Your task to perform on an android device: toggle javascript in the chrome app Image 0: 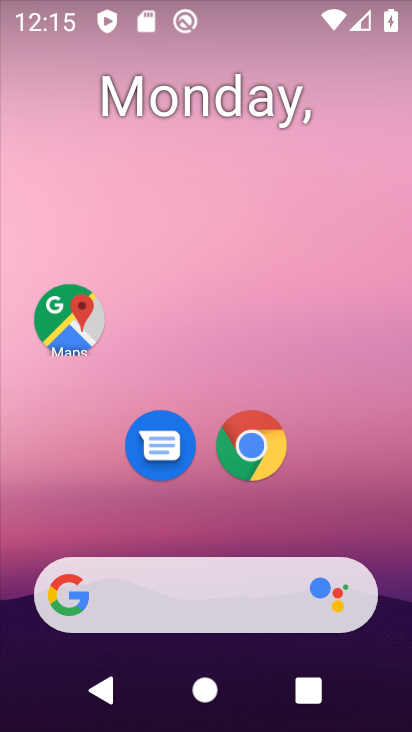
Step 0: drag from (175, 347) to (134, 176)
Your task to perform on an android device: toggle javascript in the chrome app Image 1: 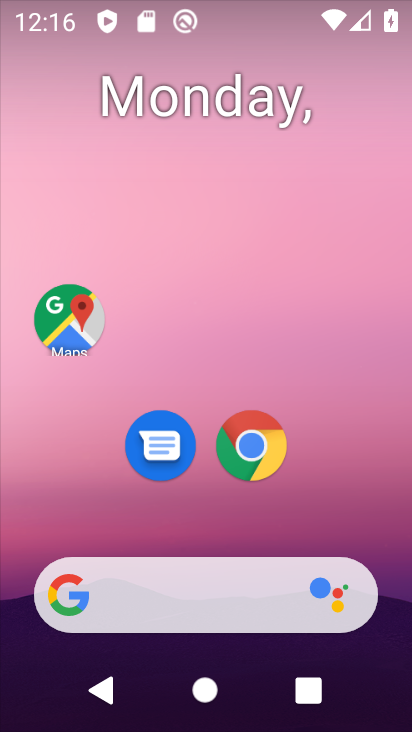
Step 1: drag from (248, 631) to (144, 54)
Your task to perform on an android device: toggle javascript in the chrome app Image 2: 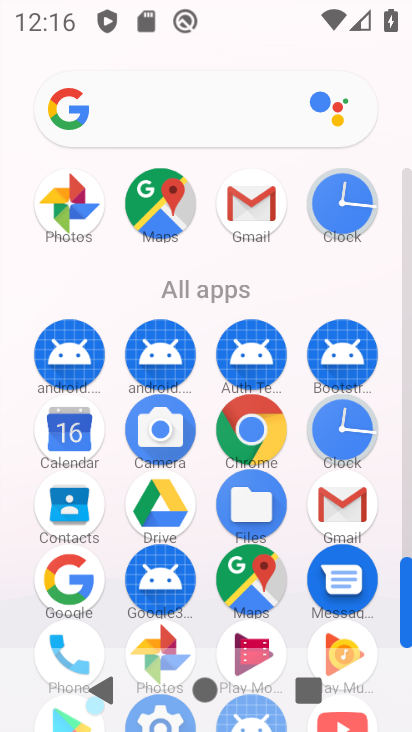
Step 2: click (249, 436)
Your task to perform on an android device: toggle javascript in the chrome app Image 3: 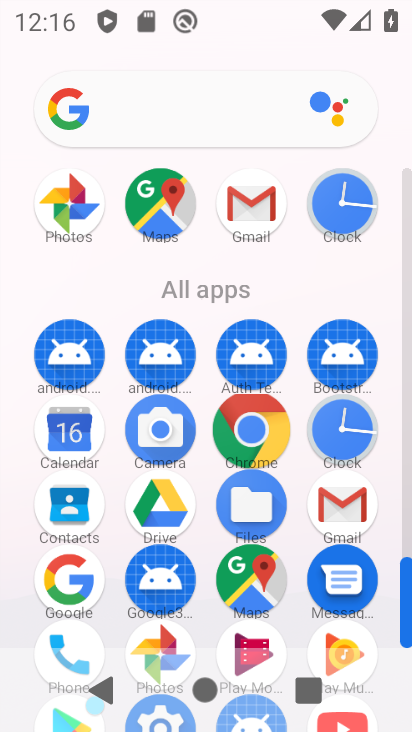
Step 3: click (253, 436)
Your task to perform on an android device: toggle javascript in the chrome app Image 4: 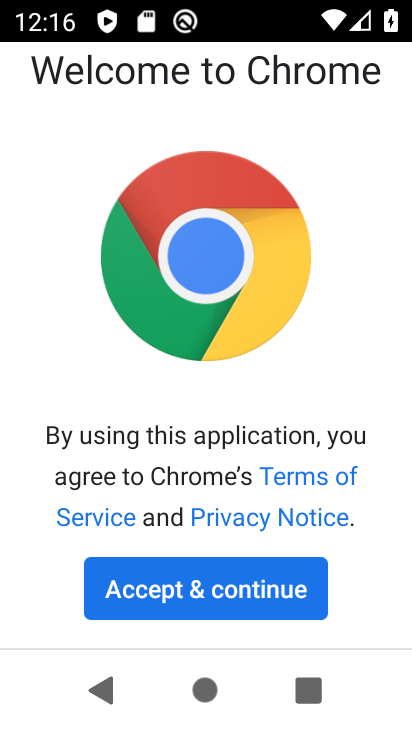
Step 4: click (219, 593)
Your task to perform on an android device: toggle javascript in the chrome app Image 5: 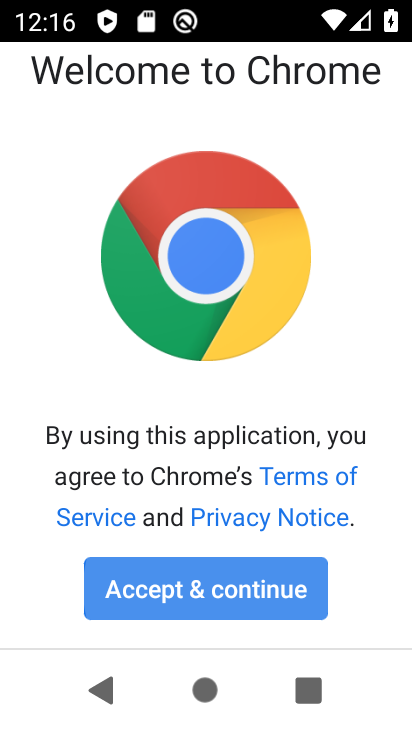
Step 5: click (216, 583)
Your task to perform on an android device: toggle javascript in the chrome app Image 6: 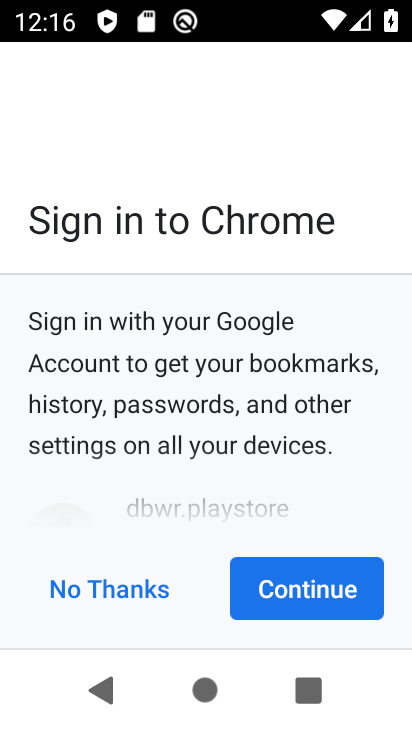
Step 6: click (220, 587)
Your task to perform on an android device: toggle javascript in the chrome app Image 7: 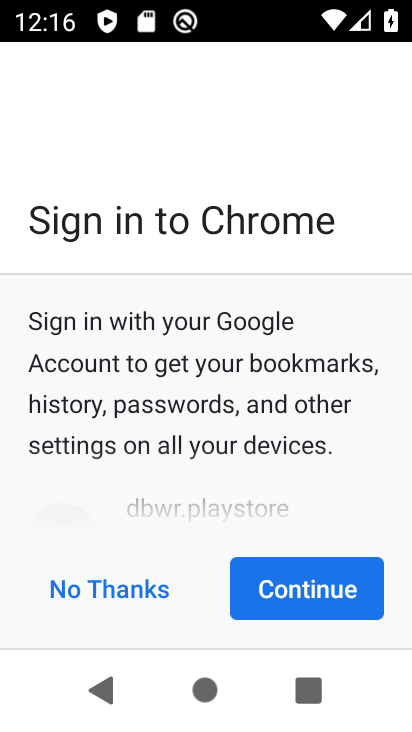
Step 7: click (341, 587)
Your task to perform on an android device: toggle javascript in the chrome app Image 8: 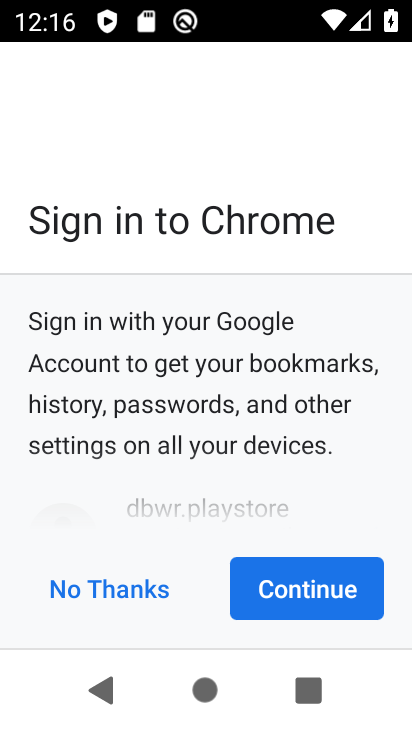
Step 8: click (341, 587)
Your task to perform on an android device: toggle javascript in the chrome app Image 9: 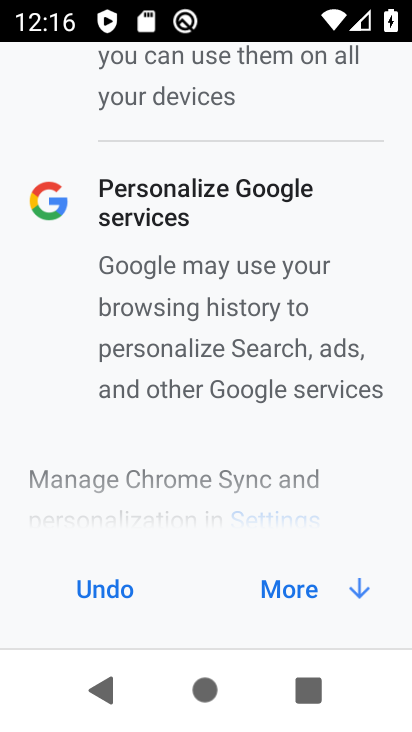
Step 9: click (302, 593)
Your task to perform on an android device: toggle javascript in the chrome app Image 10: 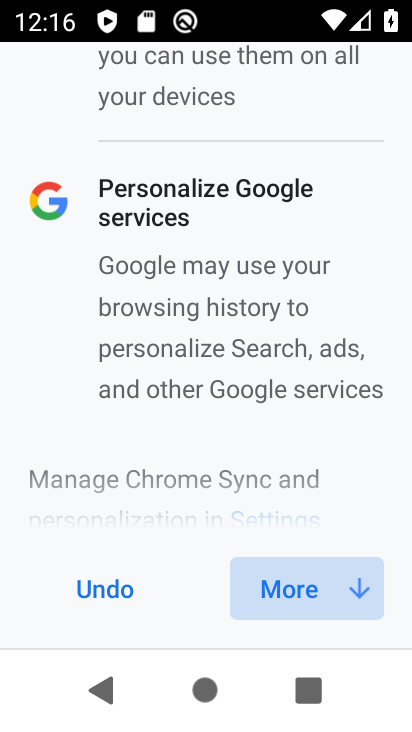
Step 10: click (311, 586)
Your task to perform on an android device: toggle javascript in the chrome app Image 11: 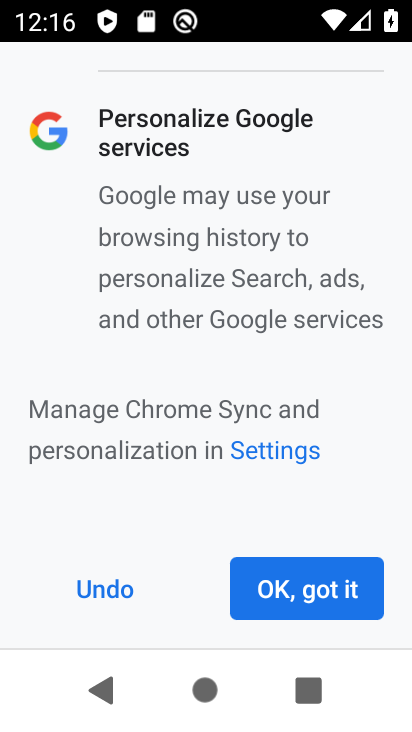
Step 11: click (312, 591)
Your task to perform on an android device: toggle javascript in the chrome app Image 12: 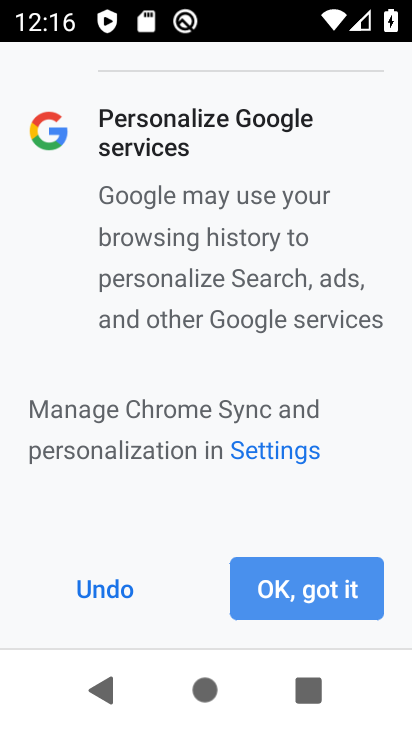
Step 12: click (312, 591)
Your task to perform on an android device: toggle javascript in the chrome app Image 13: 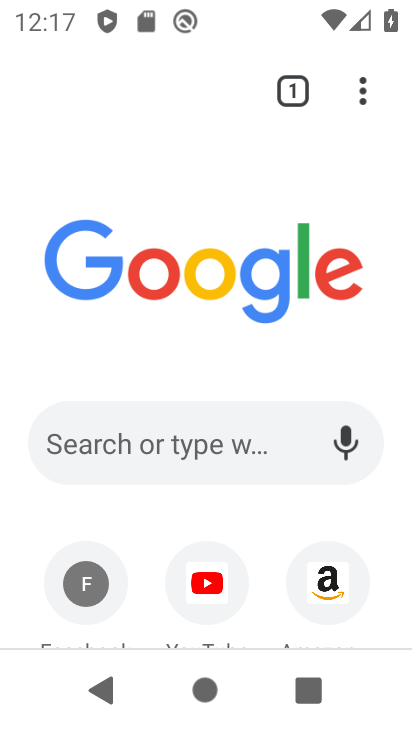
Step 13: drag from (365, 90) to (85, 472)
Your task to perform on an android device: toggle javascript in the chrome app Image 14: 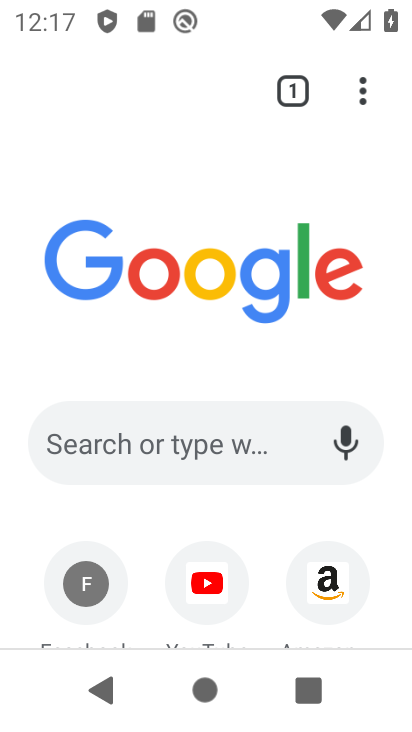
Step 14: click (89, 471)
Your task to perform on an android device: toggle javascript in the chrome app Image 15: 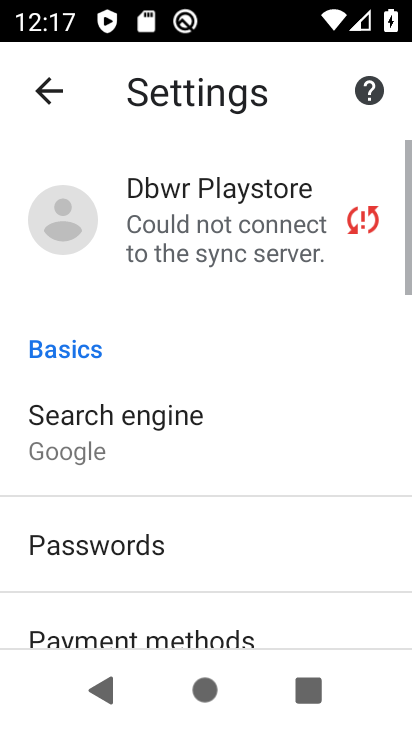
Step 15: drag from (210, 508) to (186, 86)
Your task to perform on an android device: toggle javascript in the chrome app Image 16: 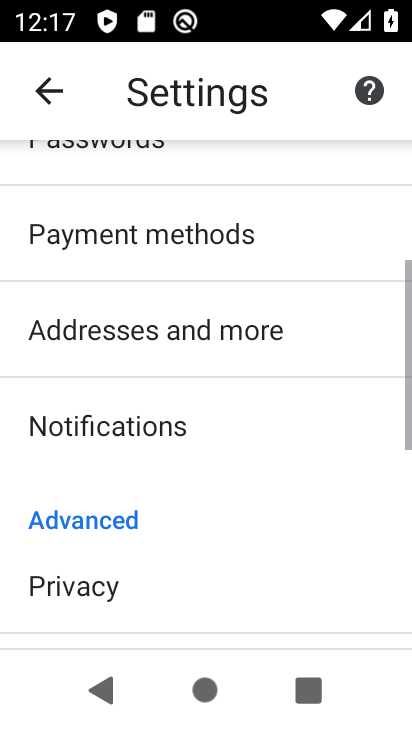
Step 16: drag from (250, 414) to (286, 28)
Your task to perform on an android device: toggle javascript in the chrome app Image 17: 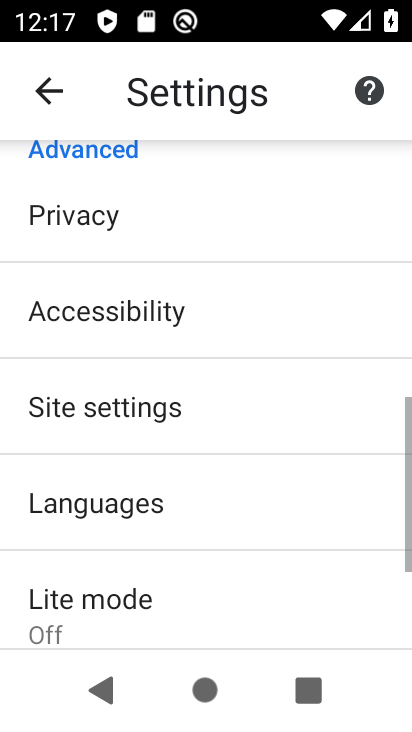
Step 17: drag from (141, 506) to (157, 164)
Your task to perform on an android device: toggle javascript in the chrome app Image 18: 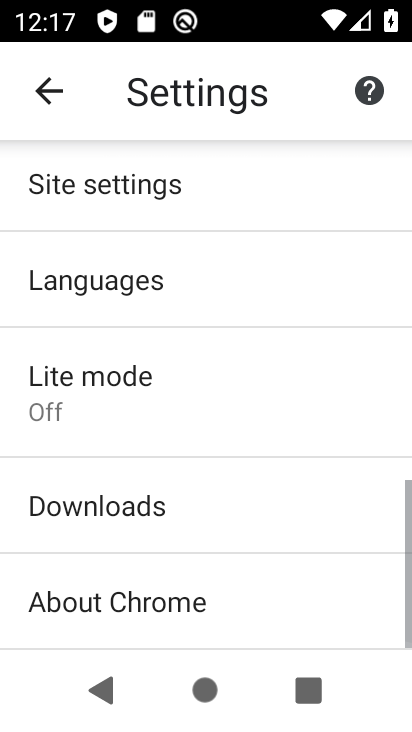
Step 18: drag from (177, 530) to (191, 230)
Your task to perform on an android device: toggle javascript in the chrome app Image 19: 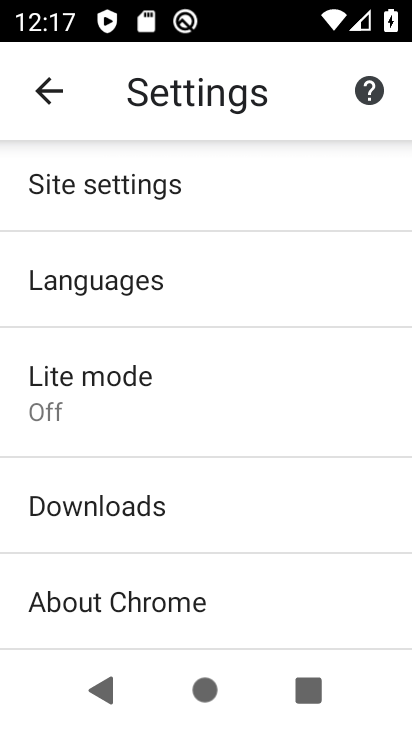
Step 19: click (82, 182)
Your task to perform on an android device: toggle javascript in the chrome app Image 20: 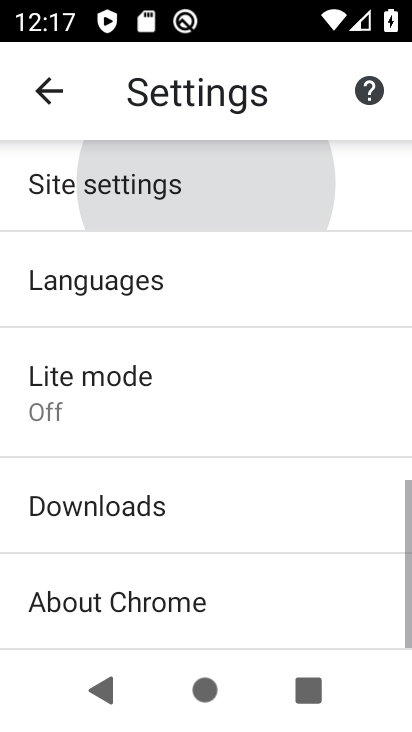
Step 20: click (81, 181)
Your task to perform on an android device: toggle javascript in the chrome app Image 21: 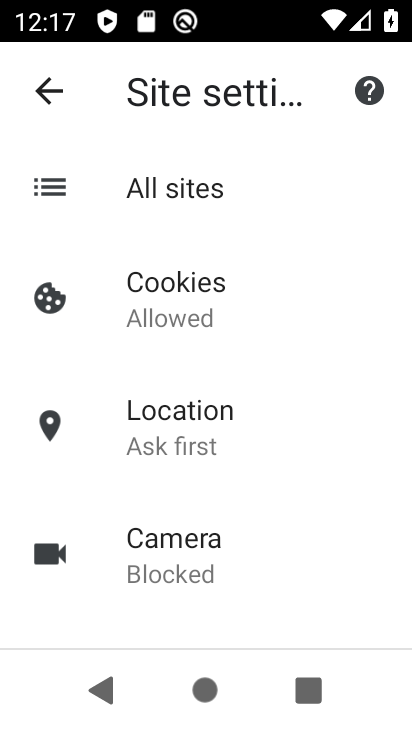
Step 21: click (173, 62)
Your task to perform on an android device: toggle javascript in the chrome app Image 22: 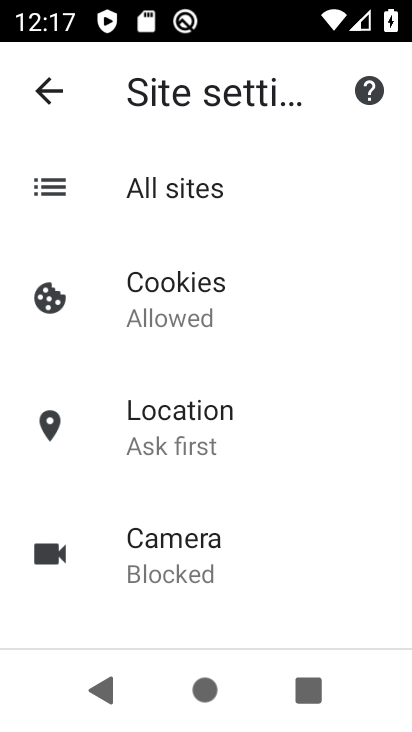
Step 22: drag from (227, 409) to (241, 46)
Your task to perform on an android device: toggle javascript in the chrome app Image 23: 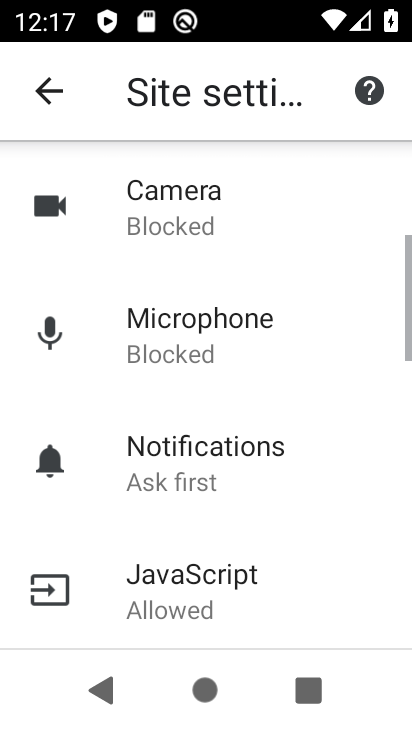
Step 23: drag from (220, 475) to (178, 148)
Your task to perform on an android device: toggle javascript in the chrome app Image 24: 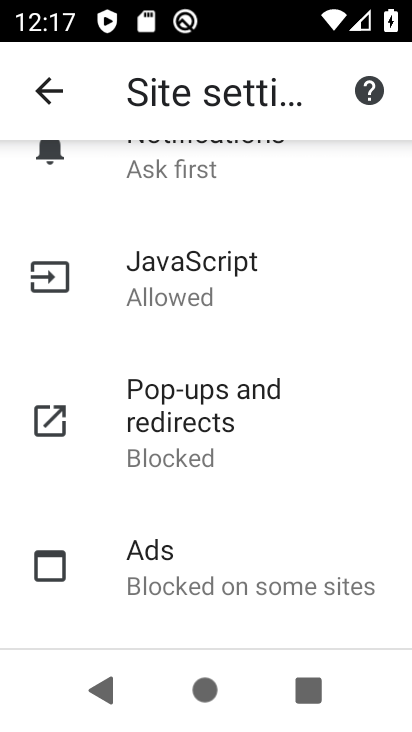
Step 24: click (170, 281)
Your task to perform on an android device: toggle javascript in the chrome app Image 25: 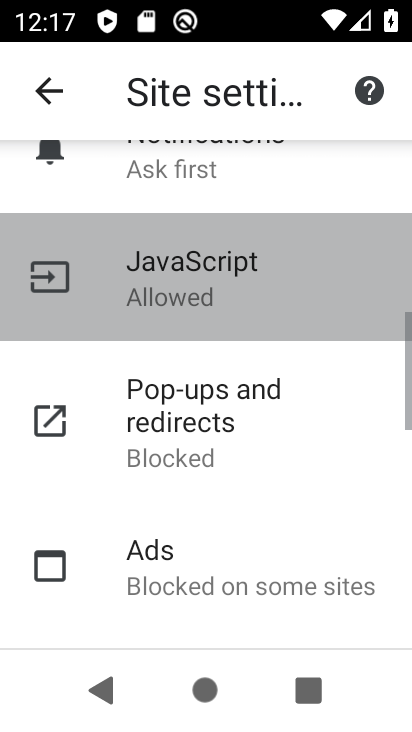
Step 25: click (179, 294)
Your task to perform on an android device: toggle javascript in the chrome app Image 26: 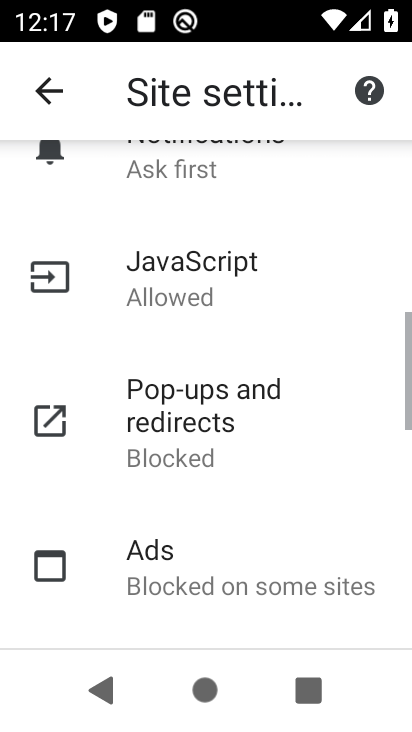
Step 26: click (180, 295)
Your task to perform on an android device: toggle javascript in the chrome app Image 27: 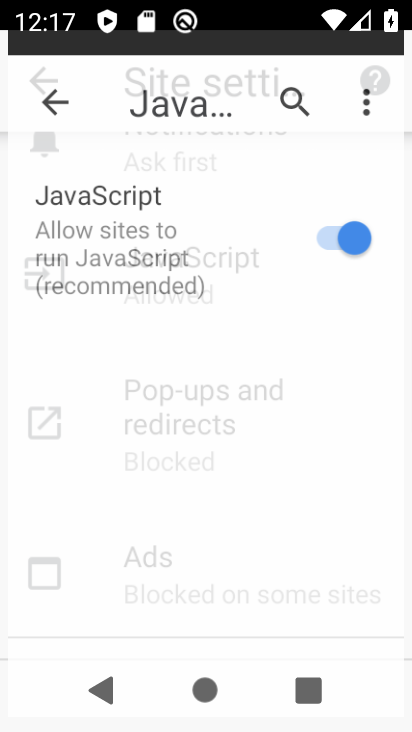
Step 27: click (181, 297)
Your task to perform on an android device: toggle javascript in the chrome app Image 28: 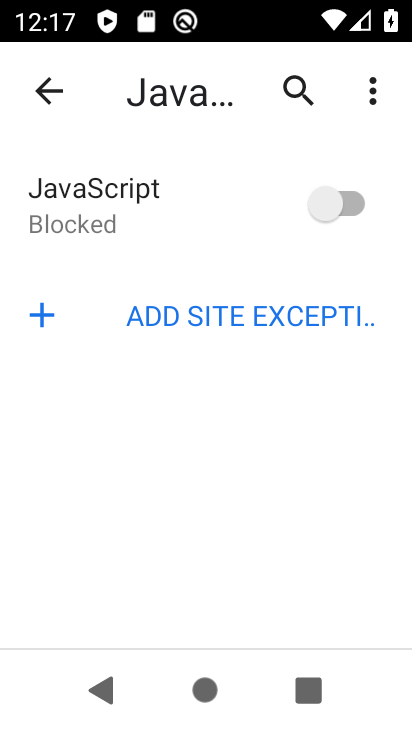
Step 28: click (316, 197)
Your task to perform on an android device: toggle javascript in the chrome app Image 29: 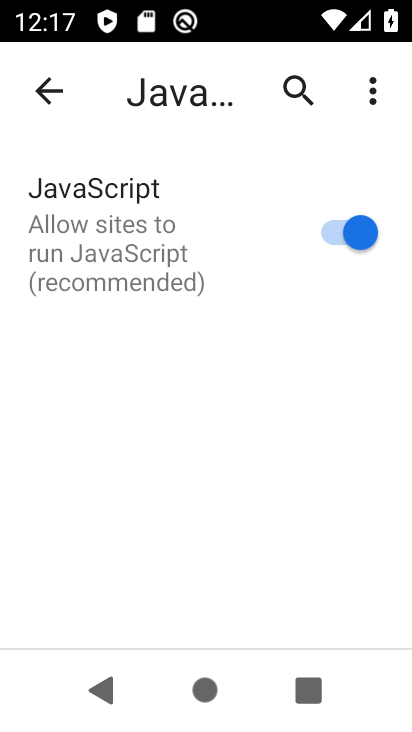
Step 29: task complete